Your task to perform on an android device: Go to internet settings Image 0: 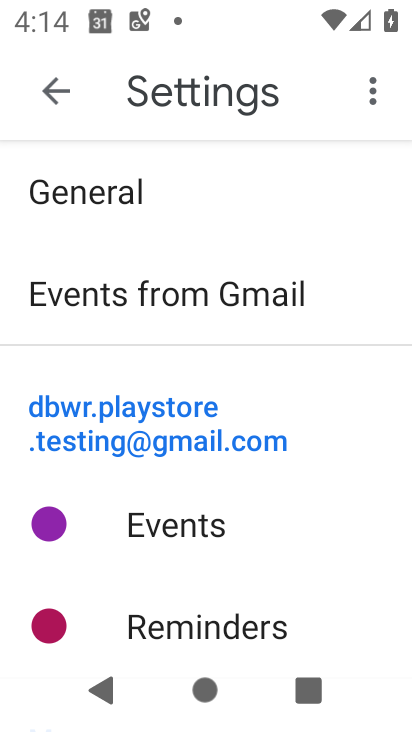
Step 0: press home button
Your task to perform on an android device: Go to internet settings Image 1: 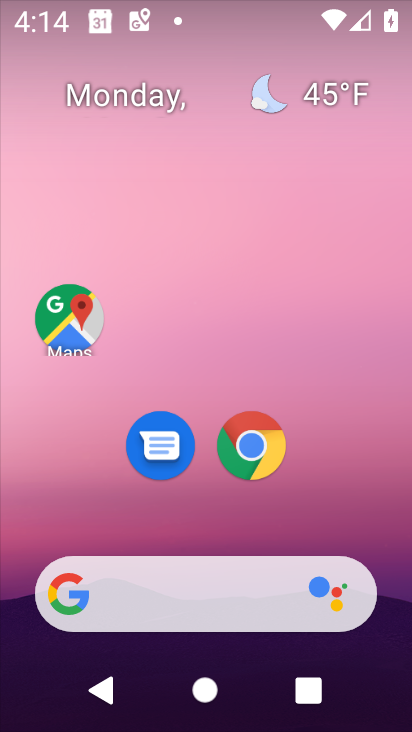
Step 1: drag from (293, 533) to (332, 84)
Your task to perform on an android device: Go to internet settings Image 2: 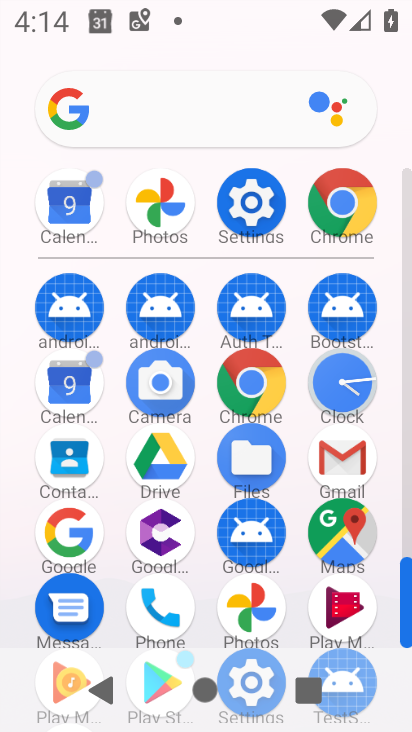
Step 2: click (268, 195)
Your task to perform on an android device: Go to internet settings Image 3: 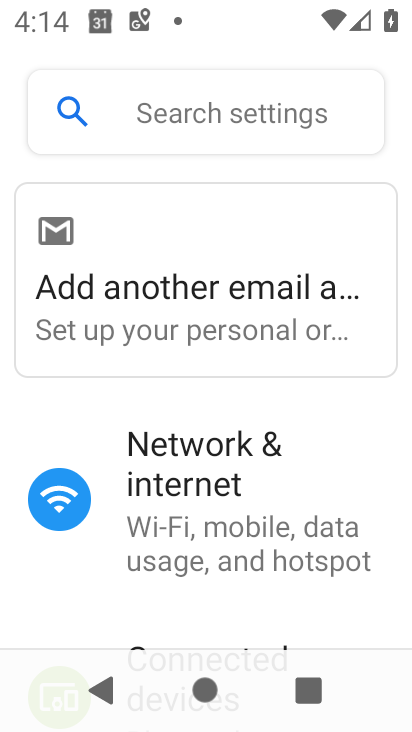
Step 3: click (191, 508)
Your task to perform on an android device: Go to internet settings Image 4: 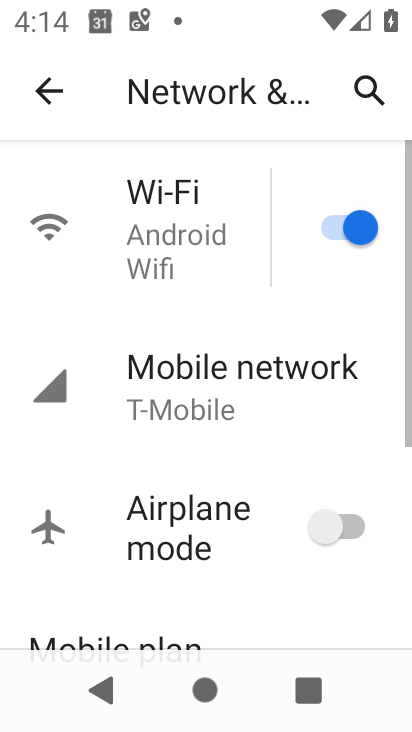
Step 4: click (219, 364)
Your task to perform on an android device: Go to internet settings Image 5: 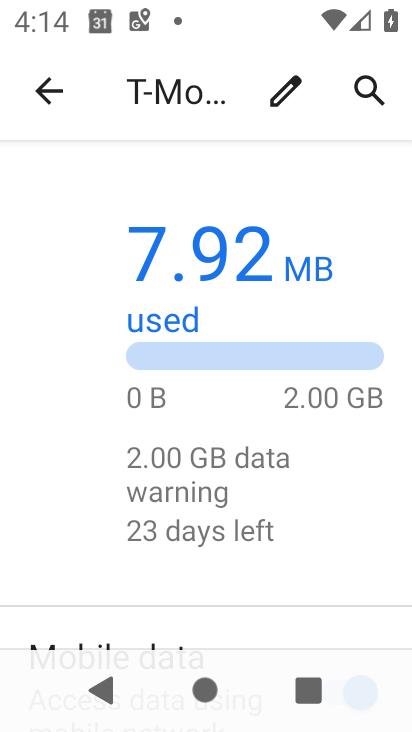
Step 5: task complete